Your task to perform on an android device: Search for the best rated headphones on amazon.com Image 0: 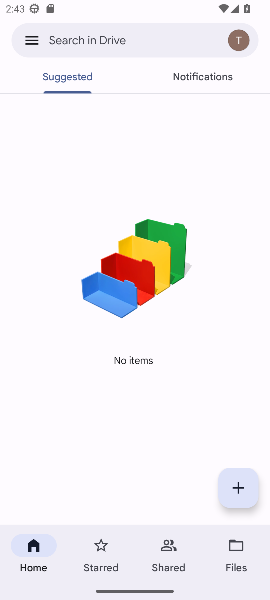
Step 0: click (34, 64)
Your task to perform on an android device: Search for the best rated headphones on amazon.com Image 1: 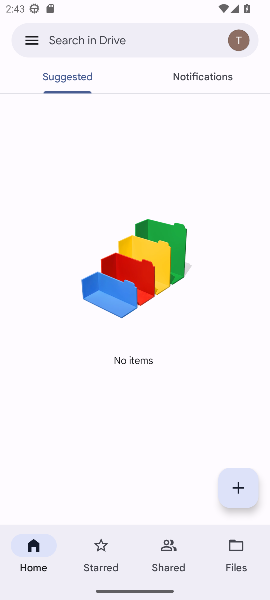
Step 1: press home button
Your task to perform on an android device: Search for the best rated headphones on amazon.com Image 2: 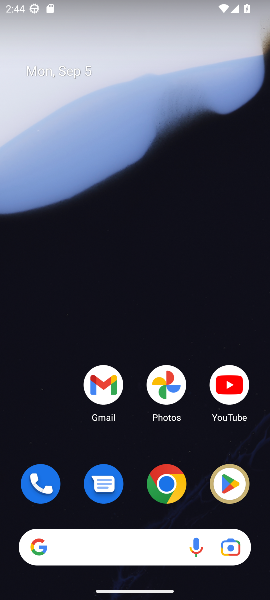
Step 2: click (152, 489)
Your task to perform on an android device: Search for the best rated headphones on amazon.com Image 3: 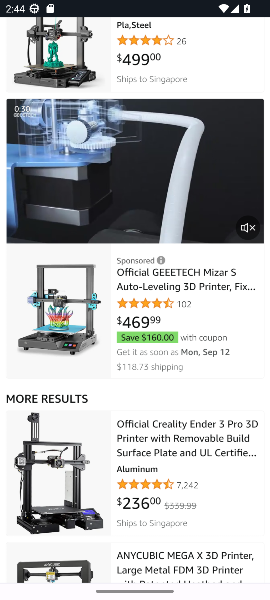
Step 3: drag from (230, 66) to (249, 451)
Your task to perform on an android device: Search for the best rated headphones on amazon.com Image 4: 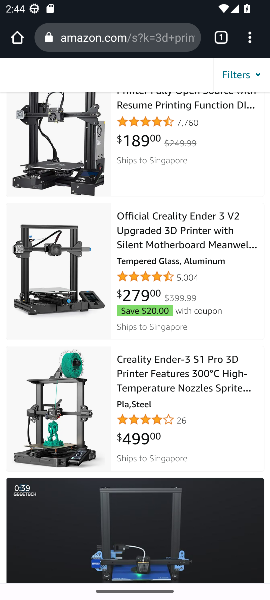
Step 4: drag from (219, 154) to (204, 453)
Your task to perform on an android device: Search for the best rated headphones on amazon.com Image 5: 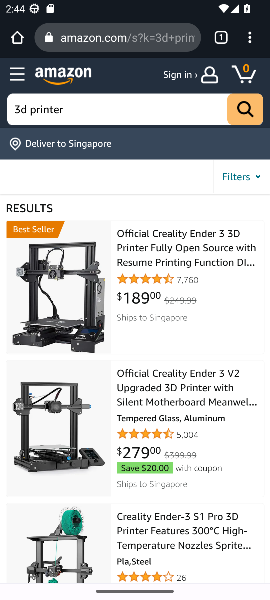
Step 5: click (128, 111)
Your task to perform on an android device: Search for the best rated headphones on amazon.com Image 6: 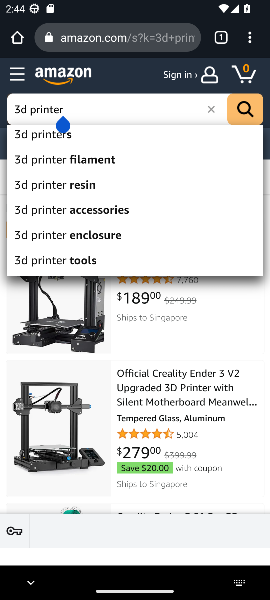
Step 6: click (211, 106)
Your task to perform on an android device: Search for the best rated headphones on amazon.com Image 7: 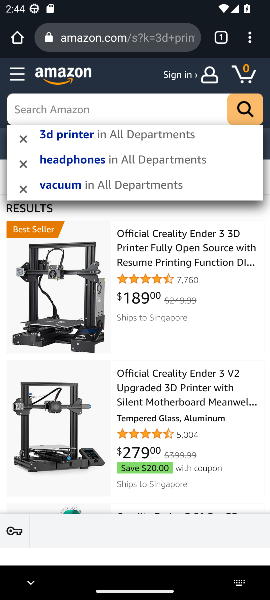
Step 7: click (145, 105)
Your task to perform on an android device: Search for the best rated headphones on amazon.com Image 8: 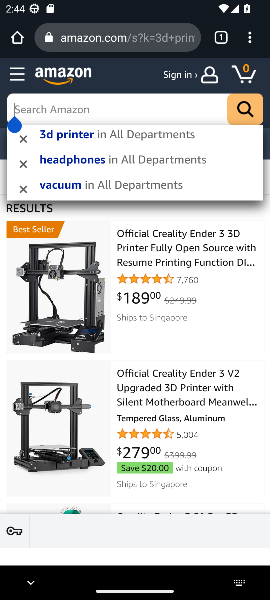
Step 8: type "headphones"
Your task to perform on an android device: Search for the best rated headphones on amazon.com Image 9: 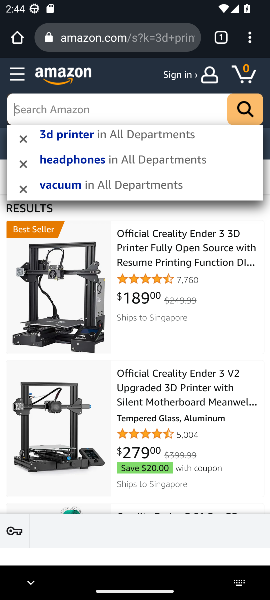
Step 9: press enter
Your task to perform on an android device: Search for the best rated headphones on amazon.com Image 10: 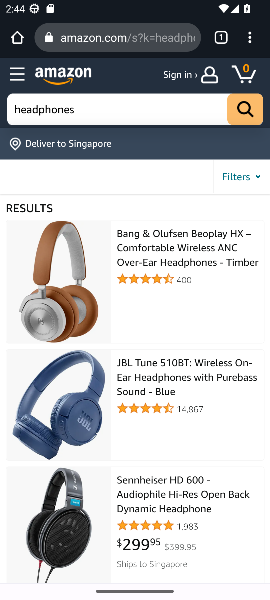
Step 10: task complete